Your task to perform on an android device: allow cookies in the chrome app Image 0: 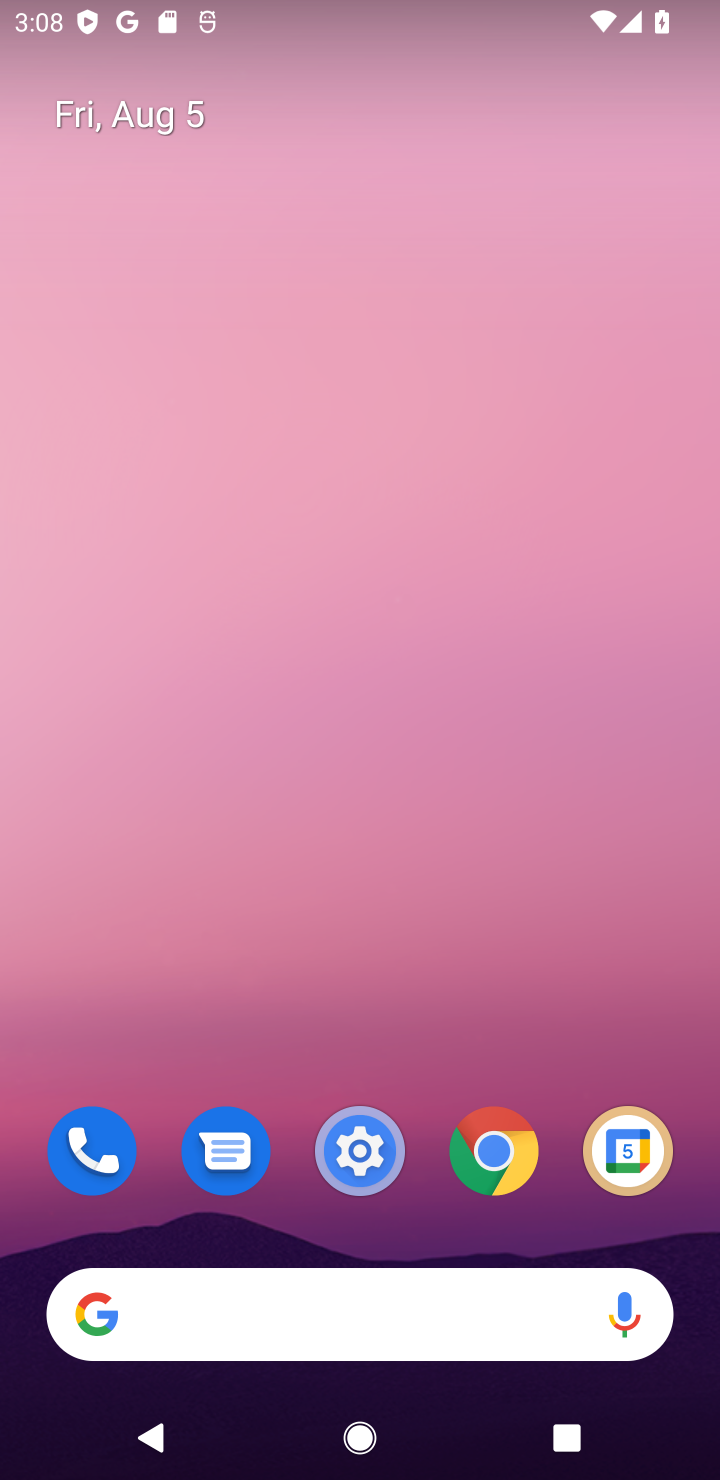
Step 0: click (500, 1135)
Your task to perform on an android device: allow cookies in the chrome app Image 1: 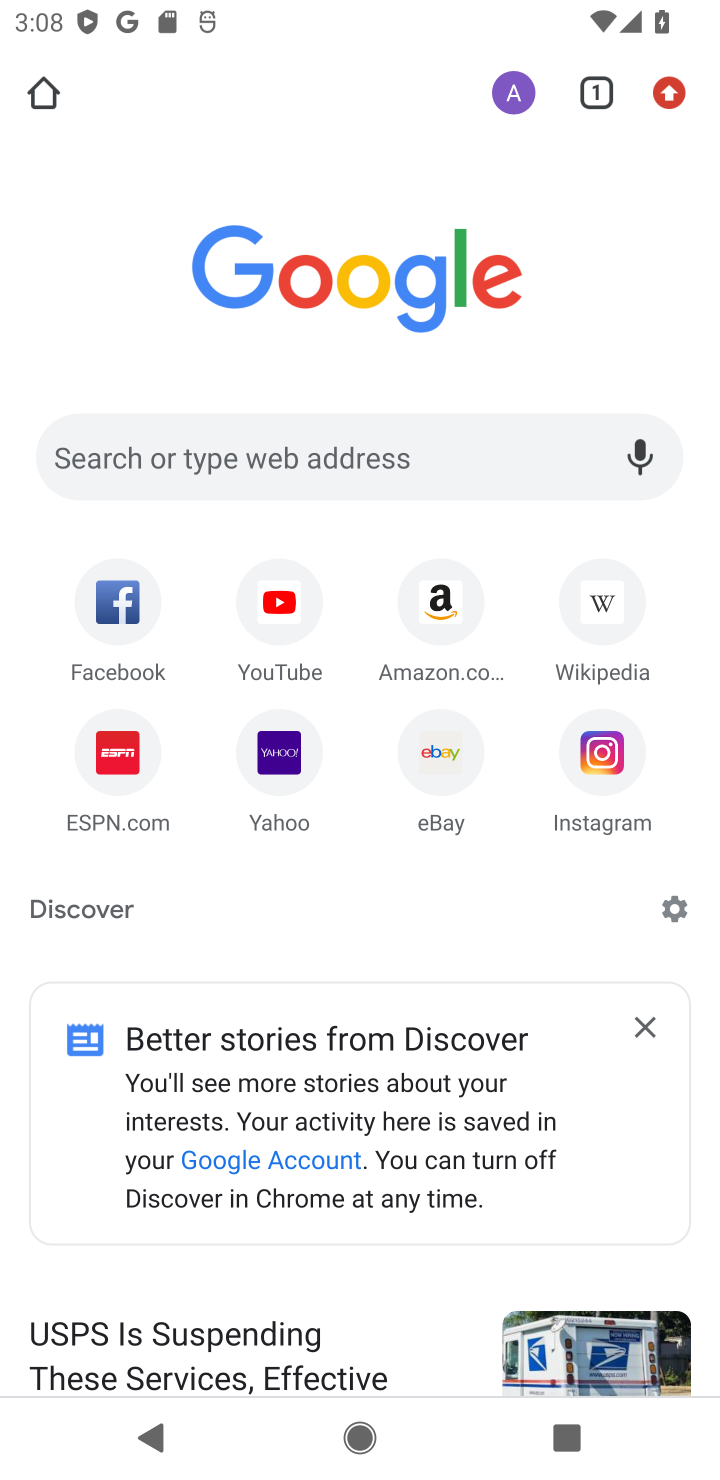
Step 1: click (666, 112)
Your task to perform on an android device: allow cookies in the chrome app Image 2: 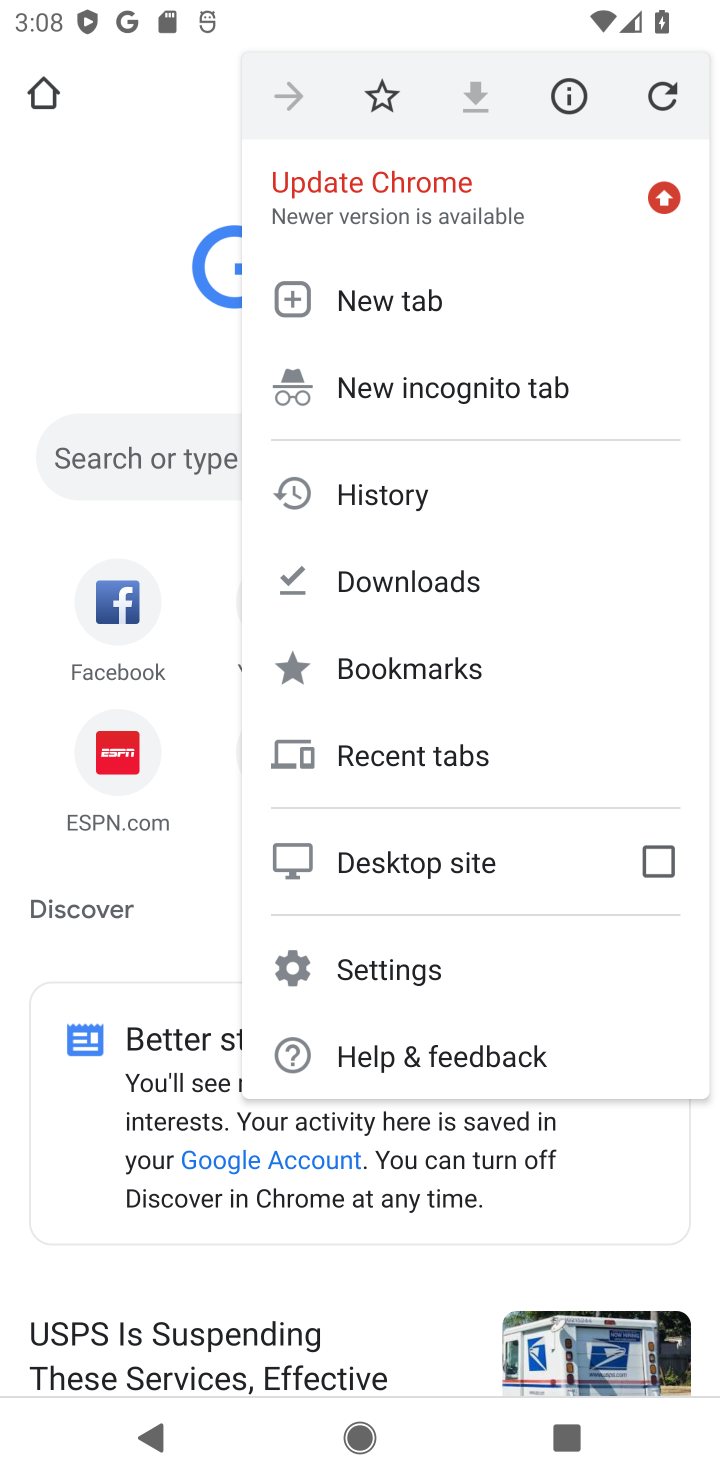
Step 2: click (356, 969)
Your task to perform on an android device: allow cookies in the chrome app Image 3: 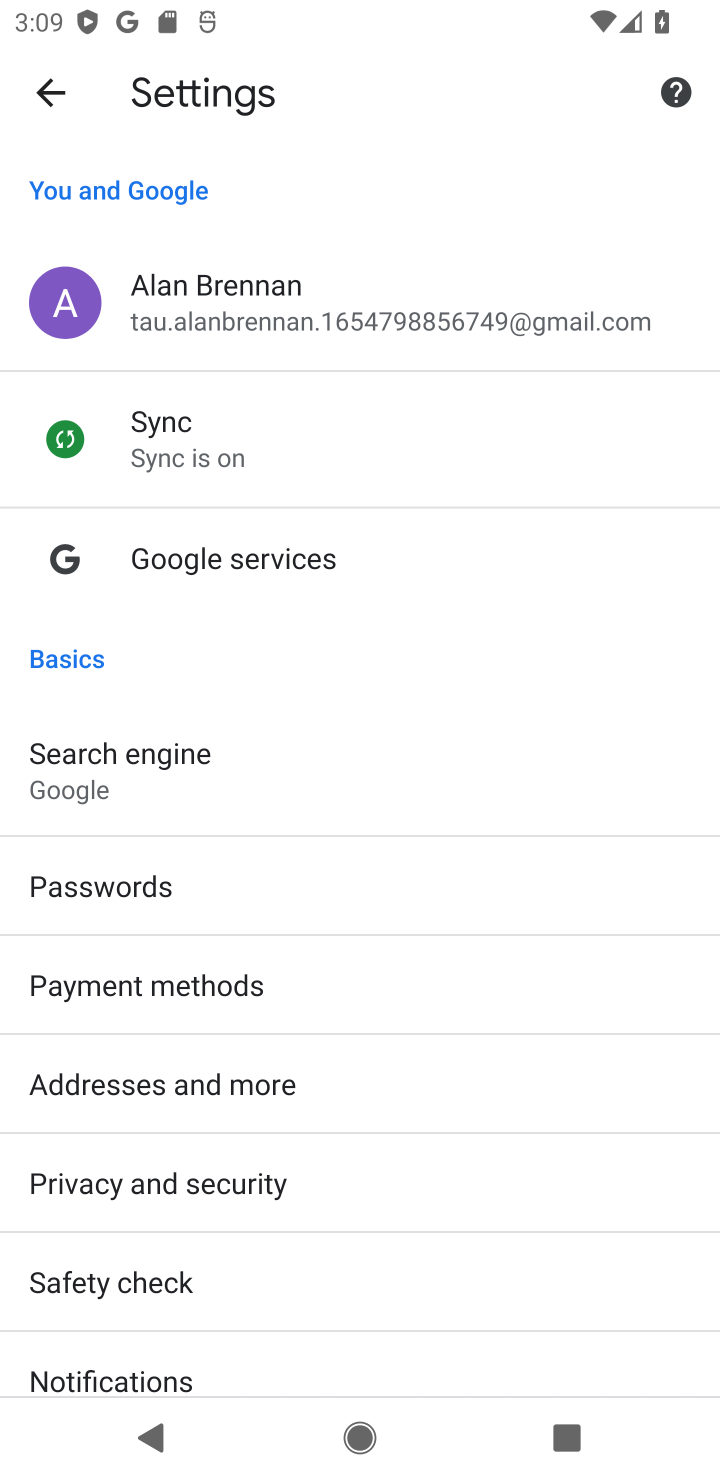
Step 3: drag from (189, 1263) to (142, 474)
Your task to perform on an android device: allow cookies in the chrome app Image 4: 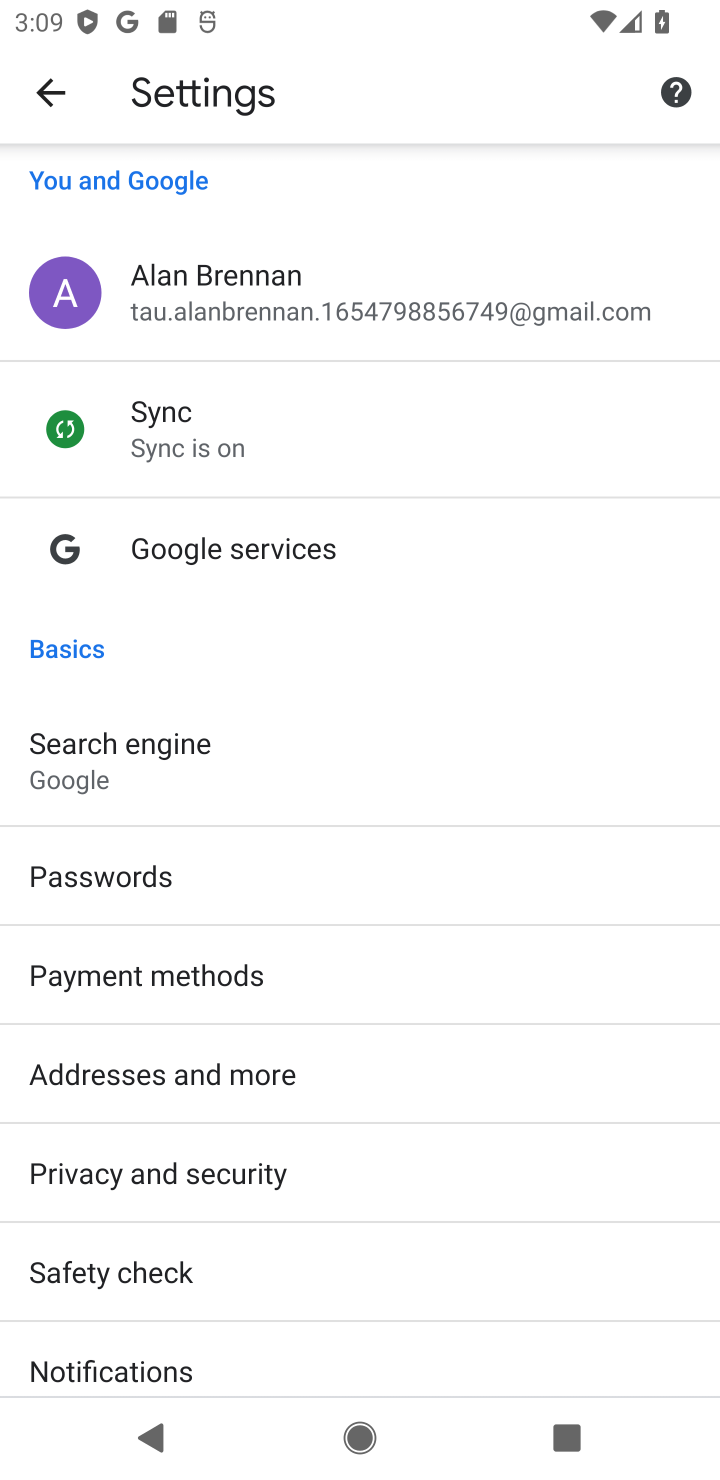
Step 4: drag from (153, 1175) to (129, 702)
Your task to perform on an android device: allow cookies in the chrome app Image 5: 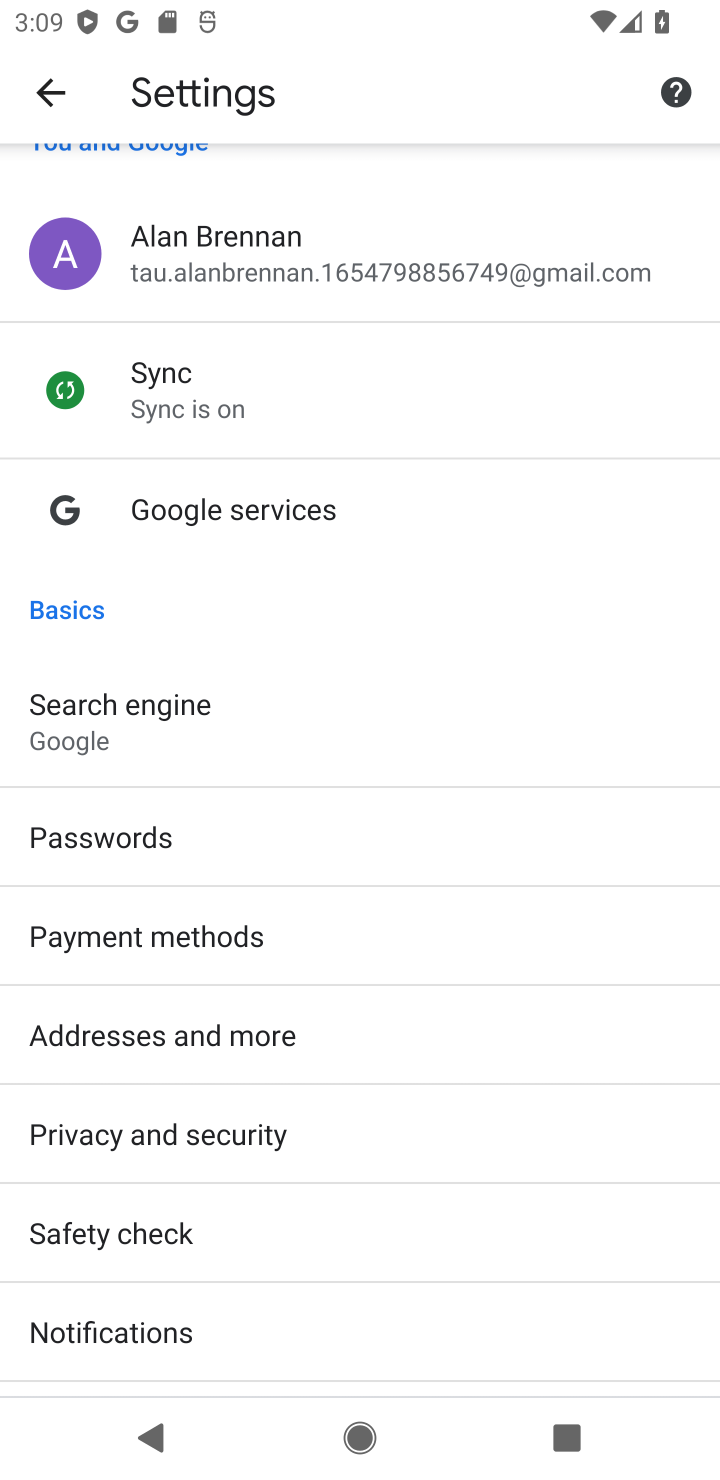
Step 5: drag from (145, 1274) to (52, 417)
Your task to perform on an android device: allow cookies in the chrome app Image 6: 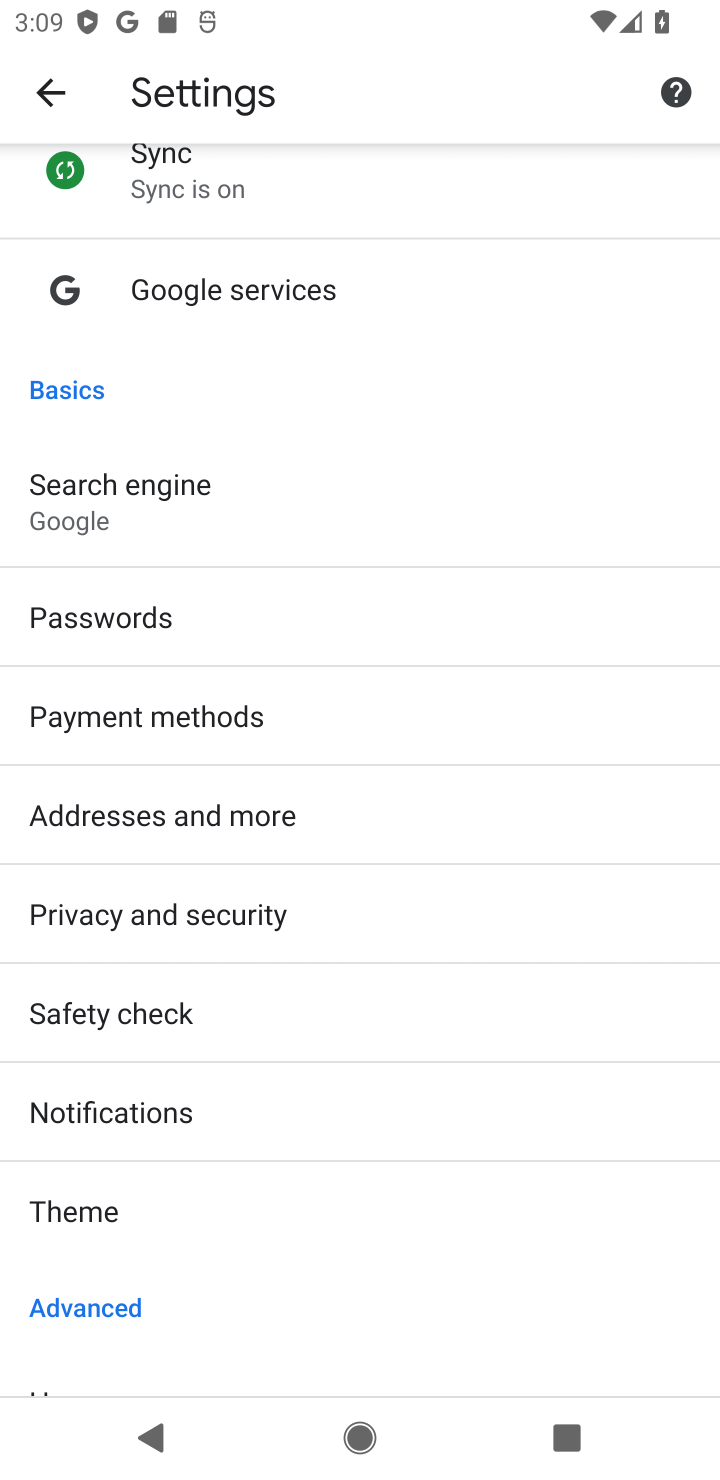
Step 6: drag from (145, 1212) to (108, 580)
Your task to perform on an android device: allow cookies in the chrome app Image 7: 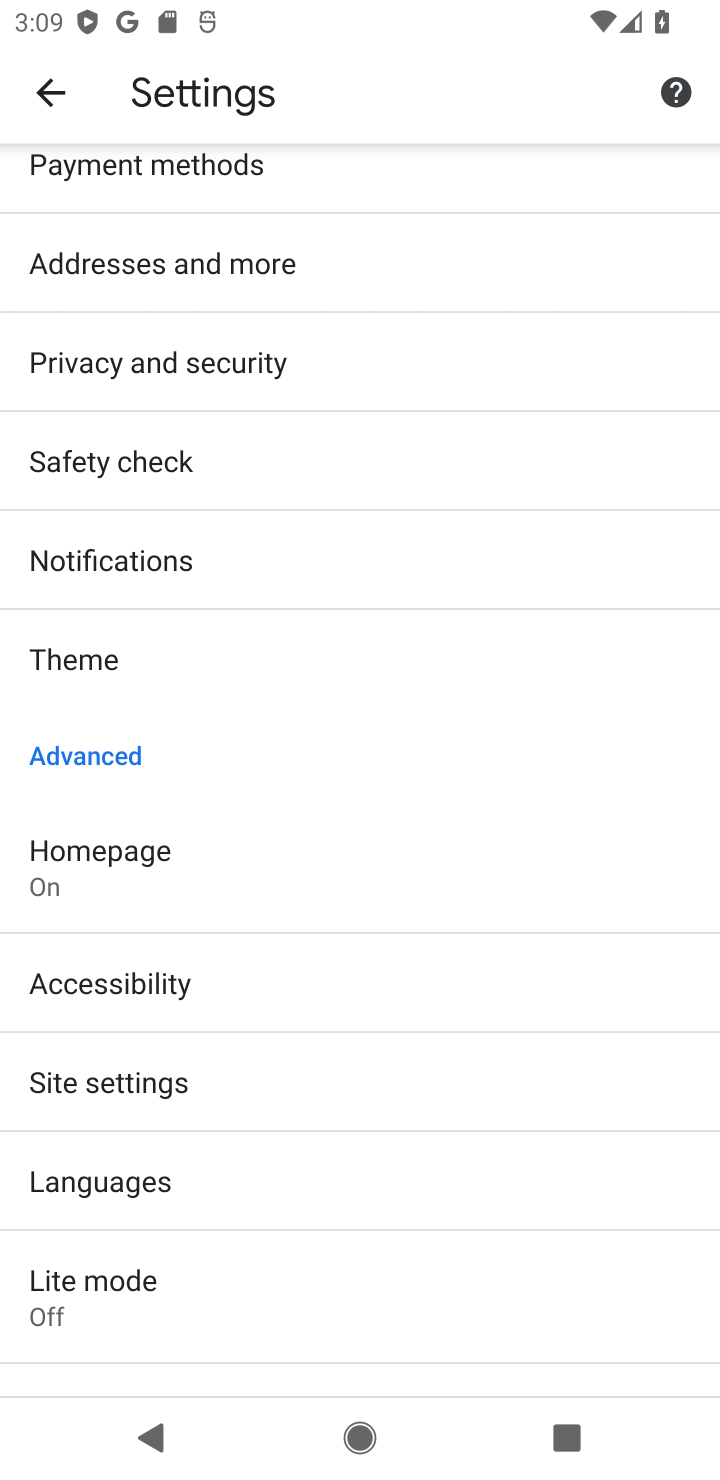
Step 7: click (112, 1078)
Your task to perform on an android device: allow cookies in the chrome app Image 8: 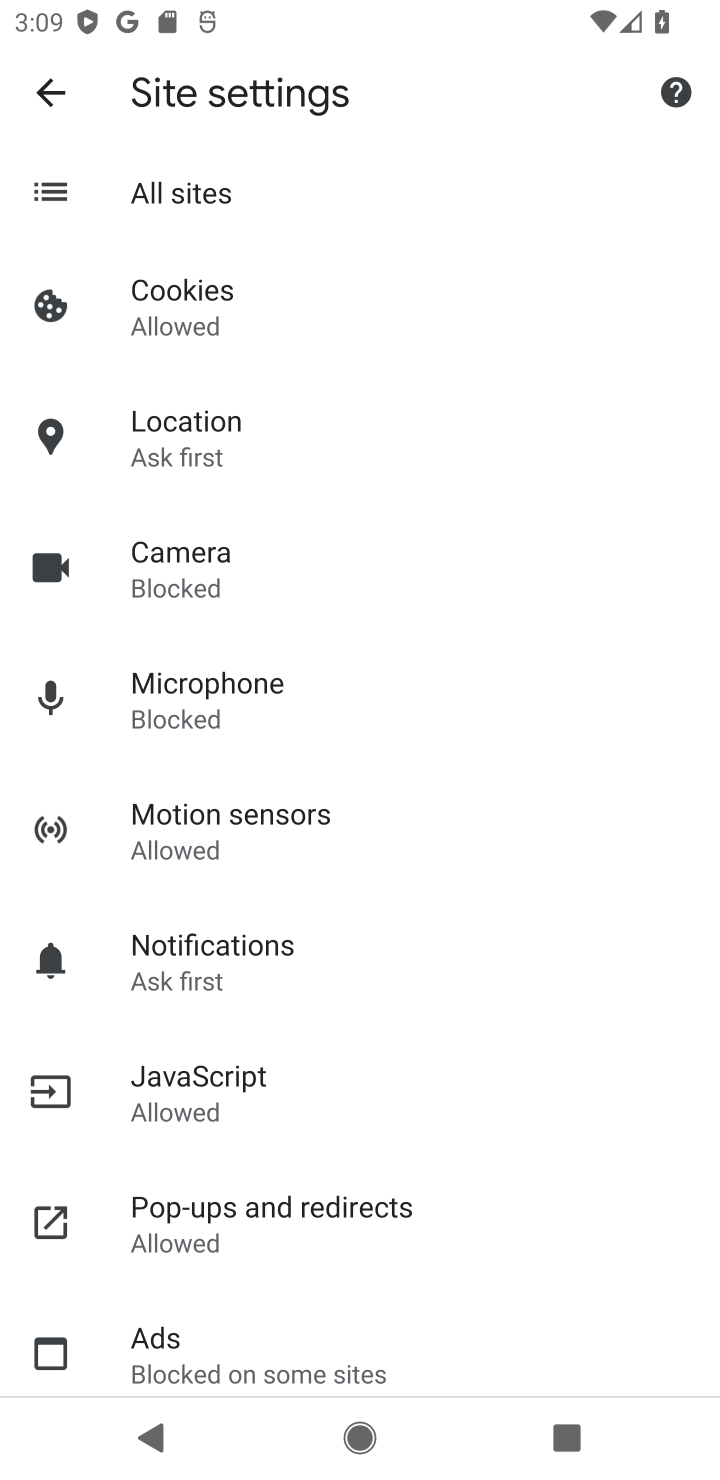
Step 8: click (320, 277)
Your task to perform on an android device: allow cookies in the chrome app Image 9: 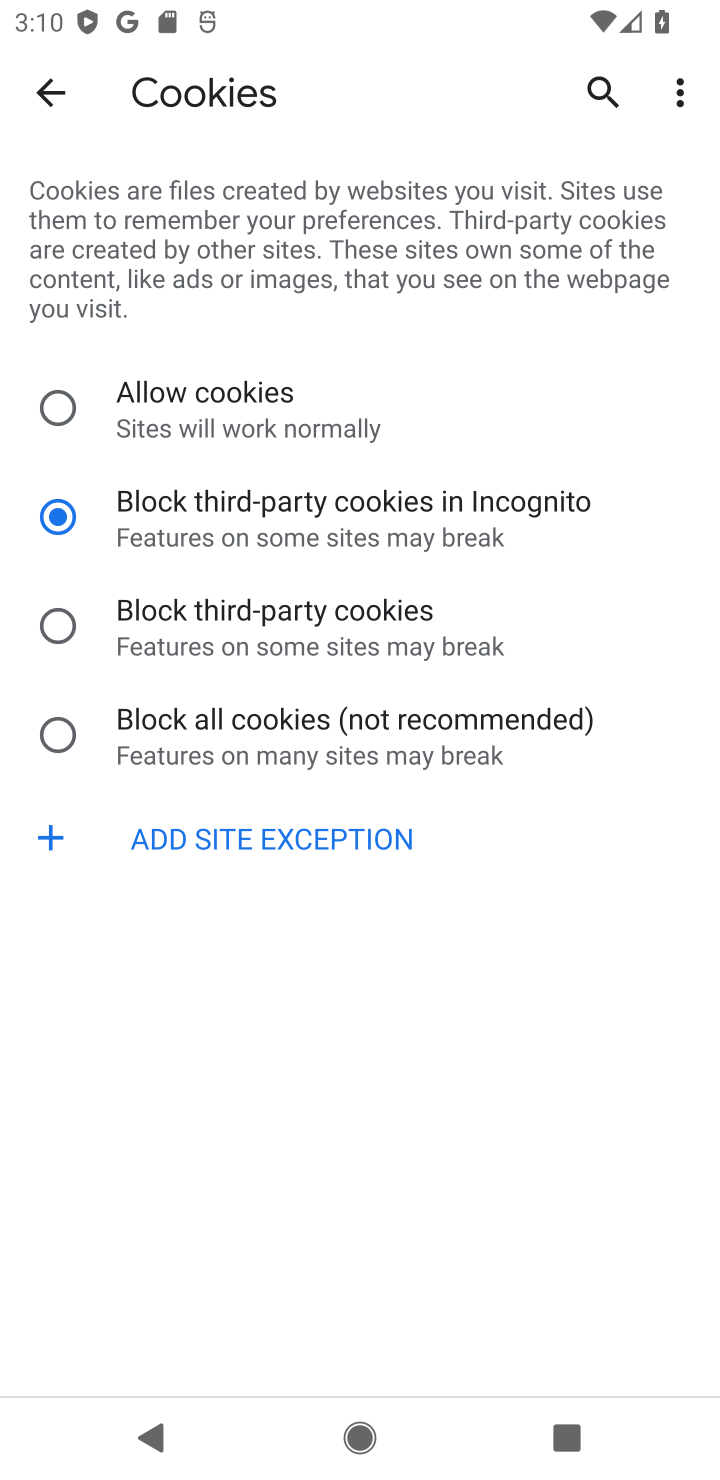
Step 9: click (263, 388)
Your task to perform on an android device: allow cookies in the chrome app Image 10: 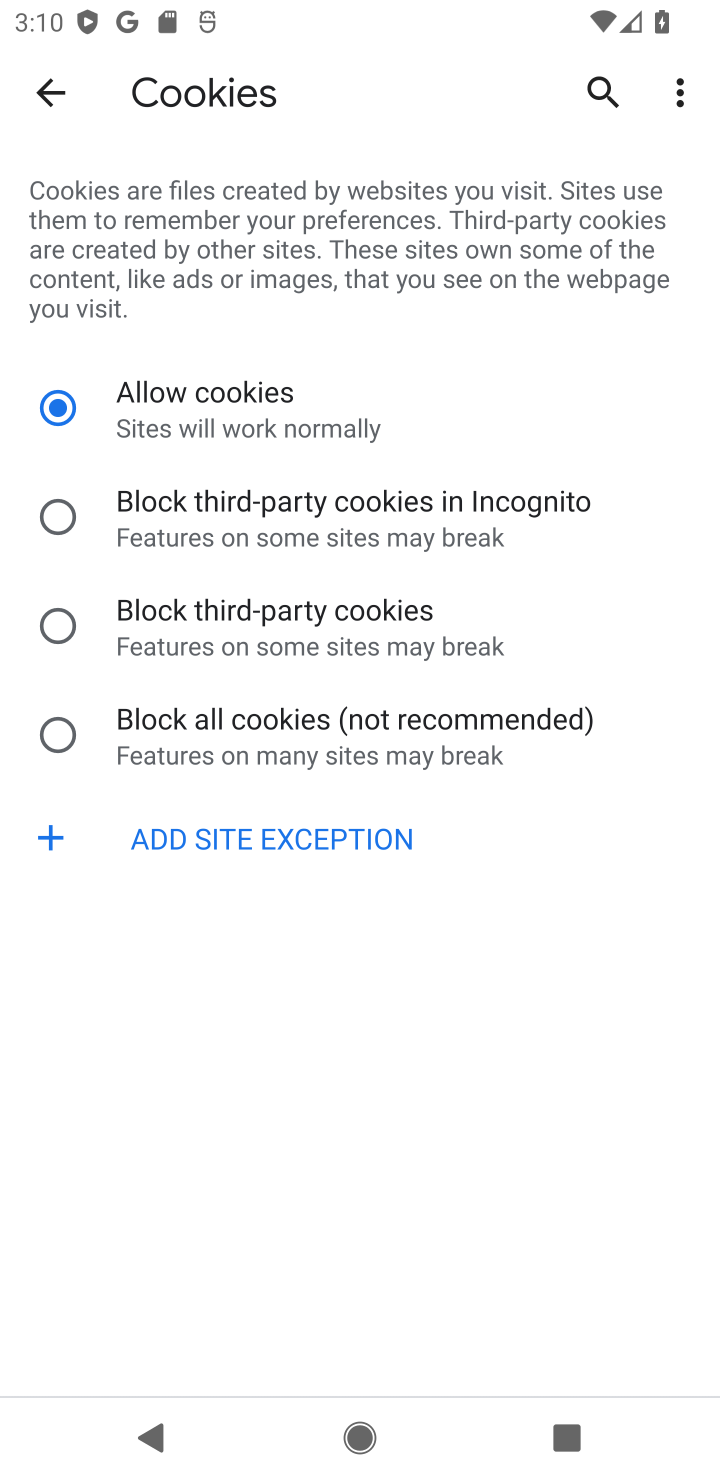
Step 10: task complete